Your task to perform on an android device: change the clock display to analog Image 0: 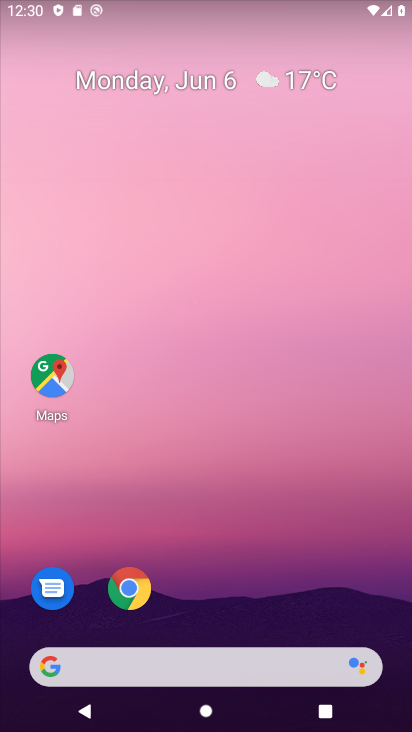
Step 0: drag from (282, 530) to (246, 0)
Your task to perform on an android device: change the clock display to analog Image 1: 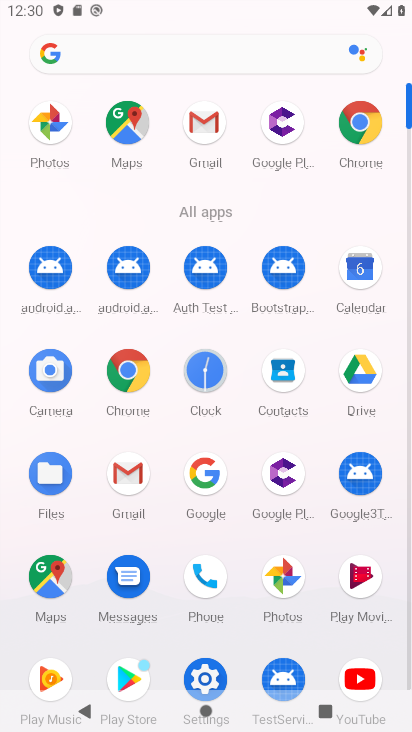
Step 1: click (208, 373)
Your task to perform on an android device: change the clock display to analog Image 2: 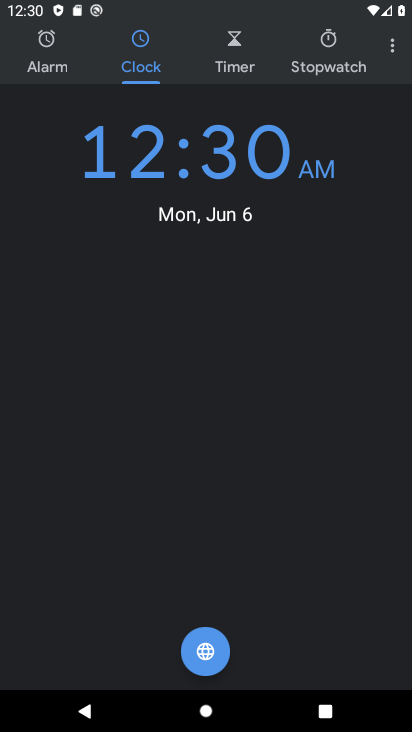
Step 2: click (393, 54)
Your task to perform on an android device: change the clock display to analog Image 3: 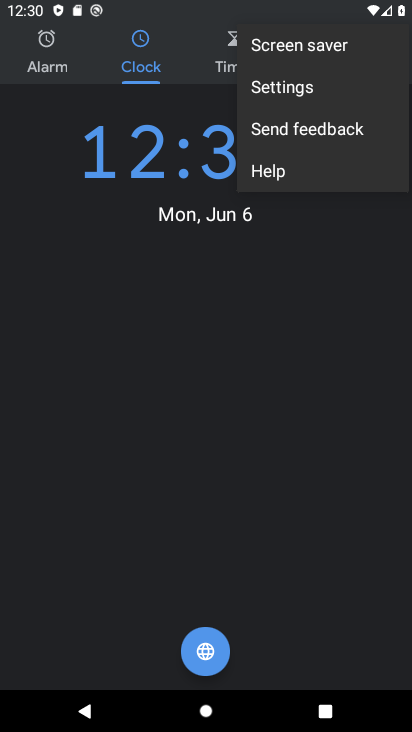
Step 3: click (295, 92)
Your task to perform on an android device: change the clock display to analog Image 4: 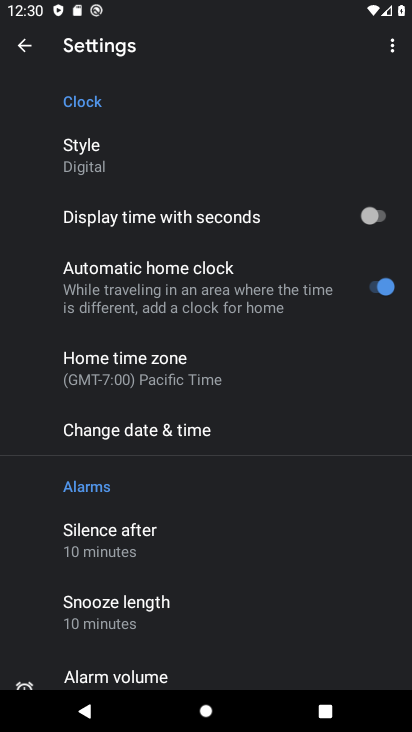
Step 4: click (107, 144)
Your task to perform on an android device: change the clock display to analog Image 5: 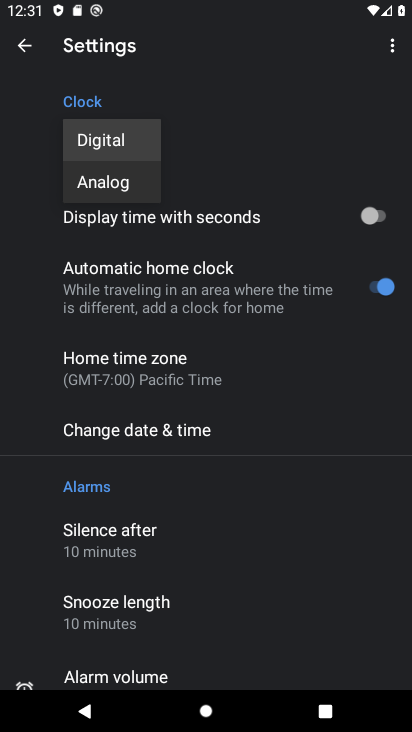
Step 5: click (106, 180)
Your task to perform on an android device: change the clock display to analog Image 6: 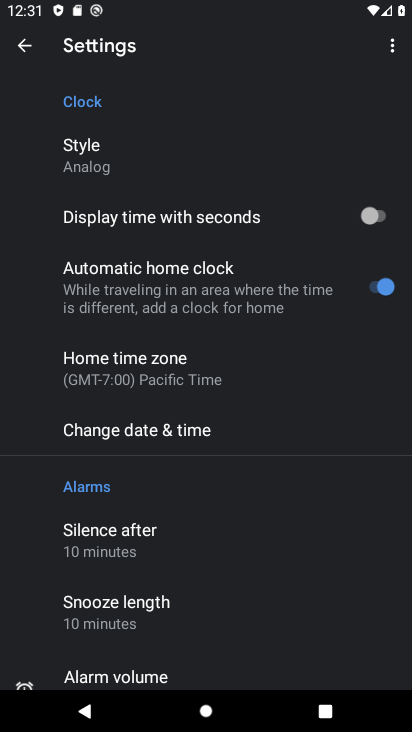
Step 6: task complete